Your task to perform on an android device: Open Maps and search for coffee Image 0: 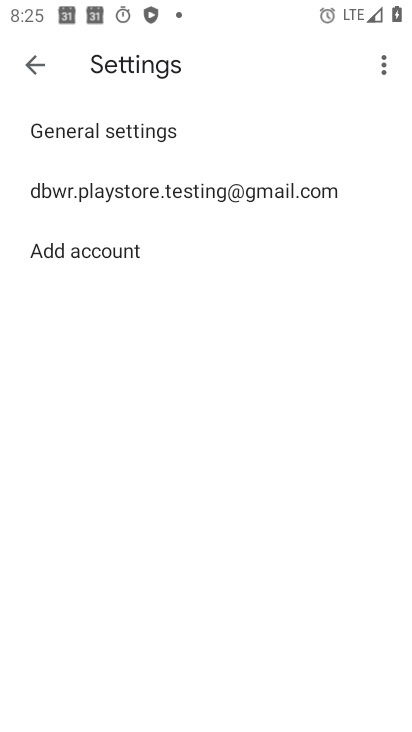
Step 0: press home button
Your task to perform on an android device: Open Maps and search for coffee Image 1: 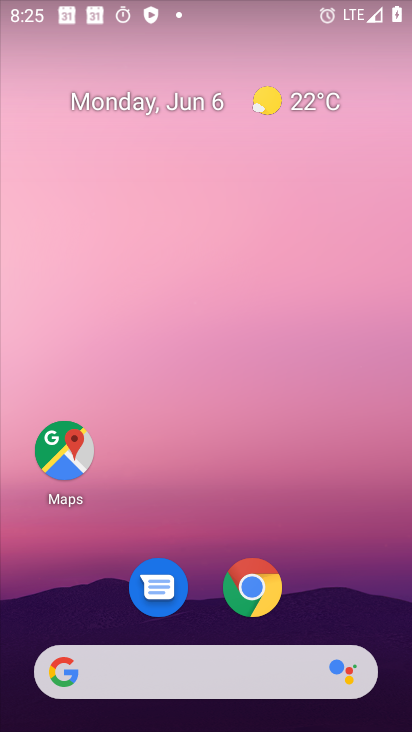
Step 1: click (63, 438)
Your task to perform on an android device: Open Maps and search for coffee Image 2: 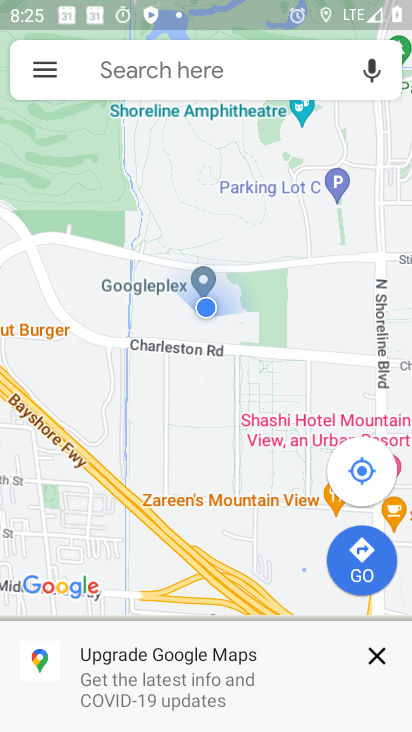
Step 2: click (162, 69)
Your task to perform on an android device: Open Maps and search for coffee Image 3: 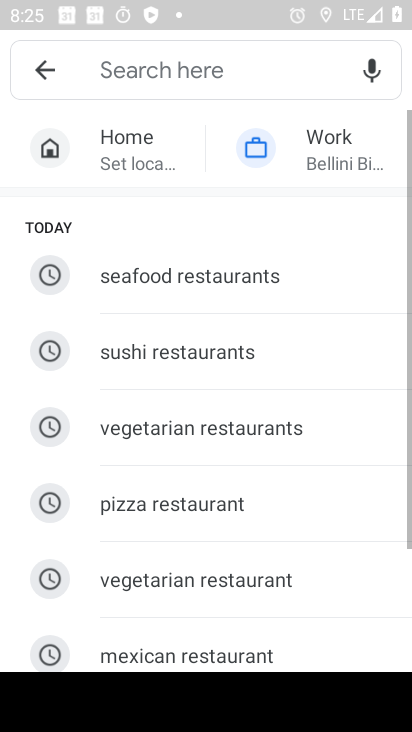
Step 3: drag from (171, 638) to (205, 255)
Your task to perform on an android device: Open Maps and search for coffee Image 4: 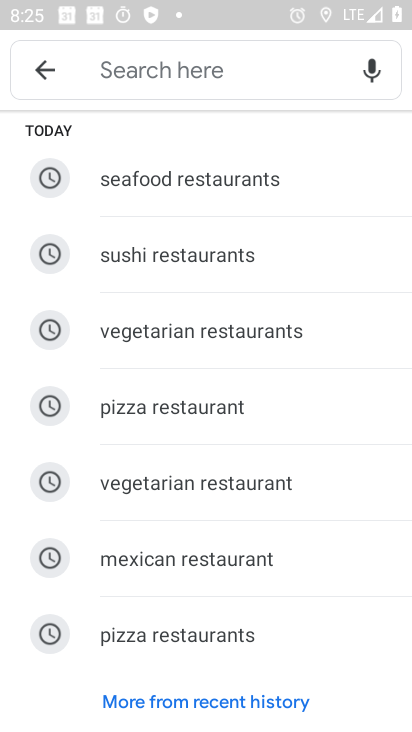
Step 4: type "coffee shop"
Your task to perform on an android device: Open Maps and search for coffee Image 5: 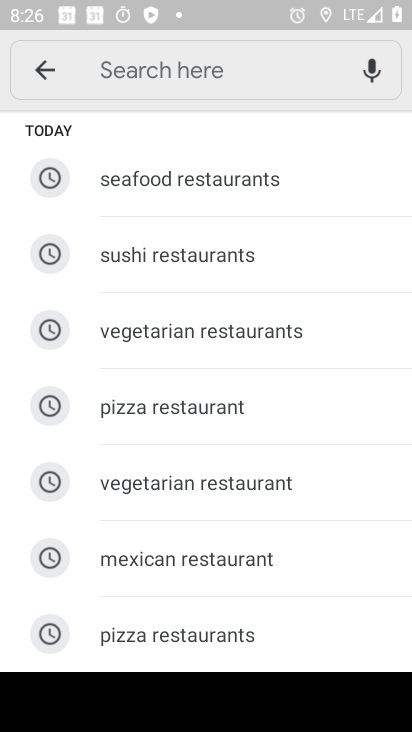
Step 5: click (109, 73)
Your task to perform on an android device: Open Maps and search for coffee Image 6: 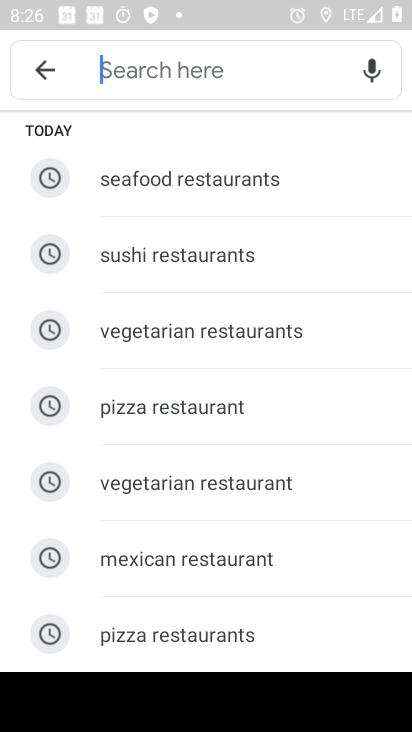
Step 6: type "coffee shopes"
Your task to perform on an android device: Open Maps and search for coffee Image 7: 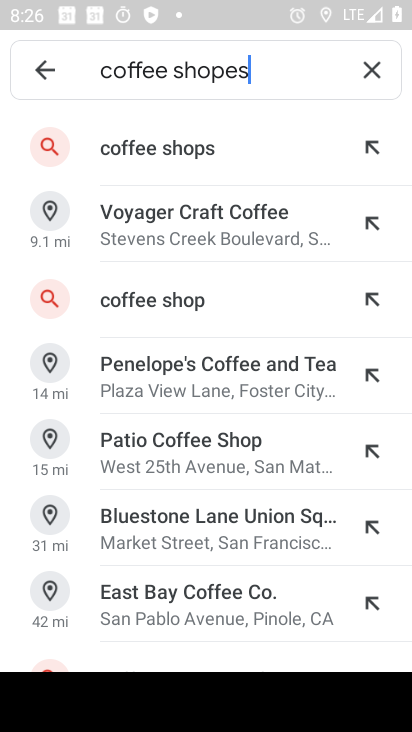
Step 7: click (214, 149)
Your task to perform on an android device: Open Maps and search for coffee Image 8: 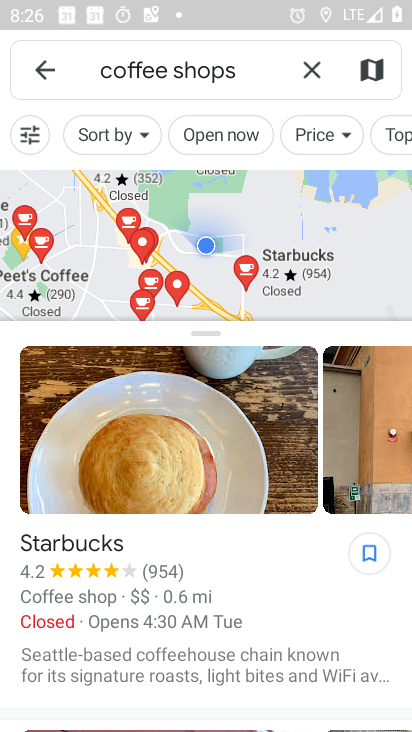
Step 8: task complete